Your task to perform on an android device: toggle notification dots Image 0: 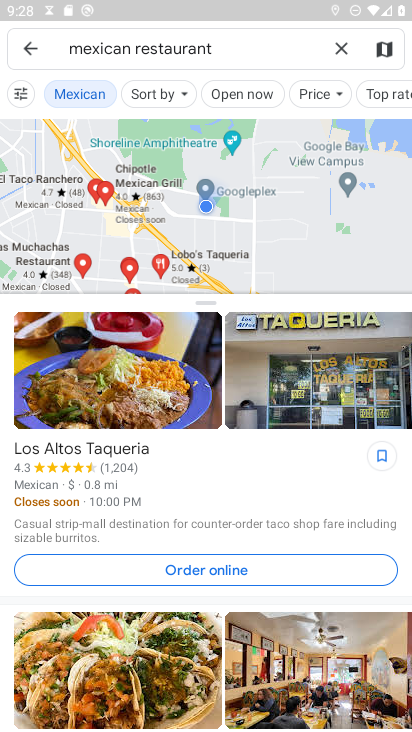
Step 0: press home button
Your task to perform on an android device: toggle notification dots Image 1: 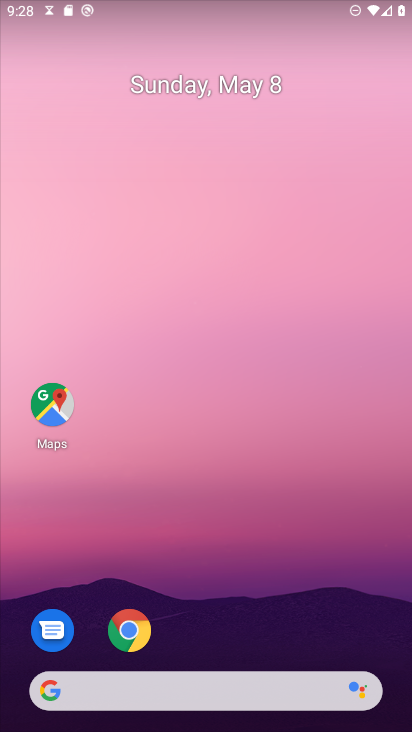
Step 1: drag from (167, 698) to (337, 94)
Your task to perform on an android device: toggle notification dots Image 2: 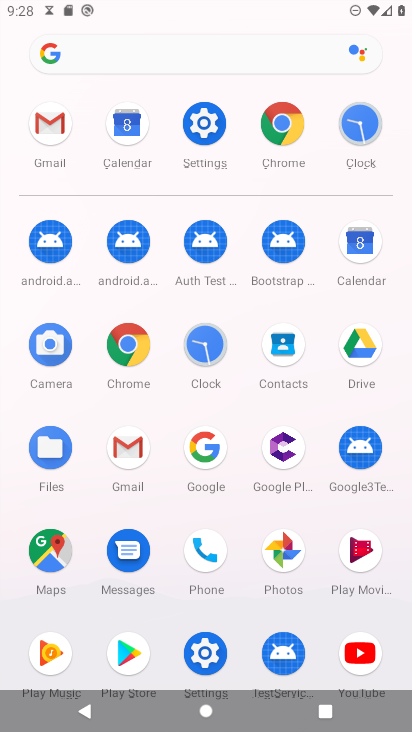
Step 2: click (203, 119)
Your task to perform on an android device: toggle notification dots Image 3: 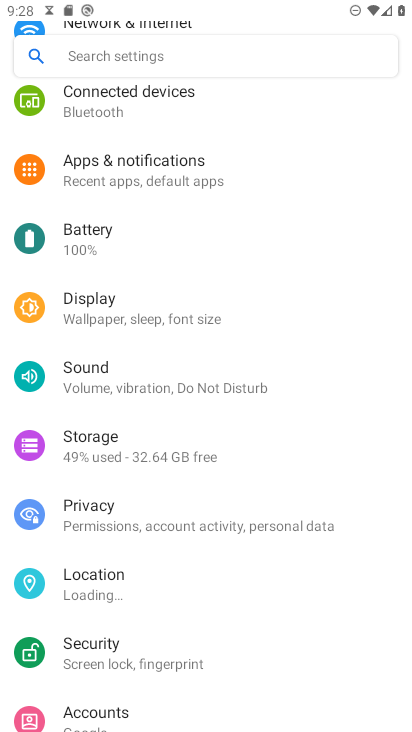
Step 3: click (166, 159)
Your task to perform on an android device: toggle notification dots Image 4: 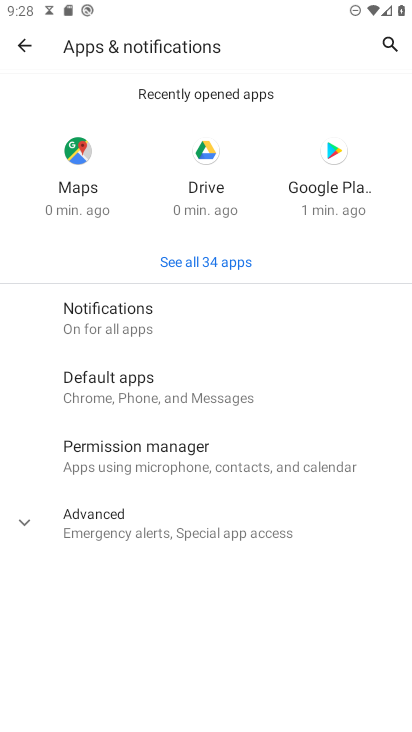
Step 4: click (147, 313)
Your task to perform on an android device: toggle notification dots Image 5: 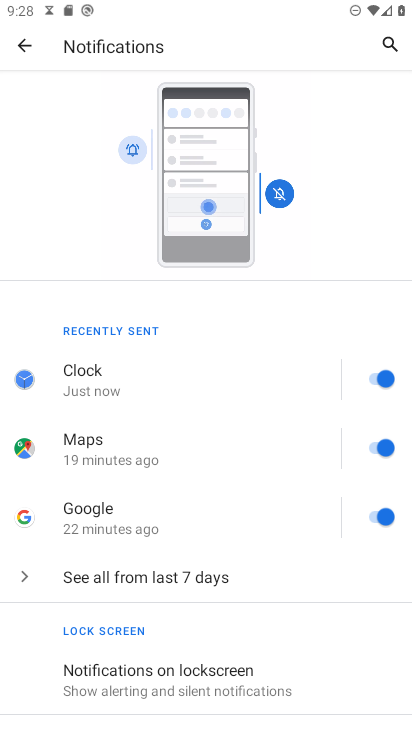
Step 5: drag from (213, 646) to (373, 159)
Your task to perform on an android device: toggle notification dots Image 6: 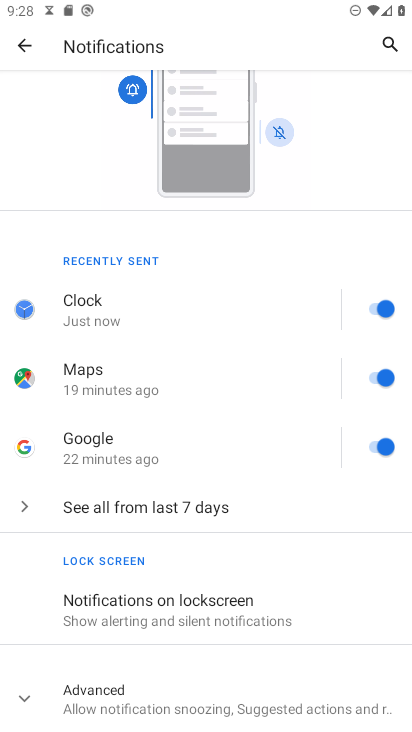
Step 6: click (117, 696)
Your task to perform on an android device: toggle notification dots Image 7: 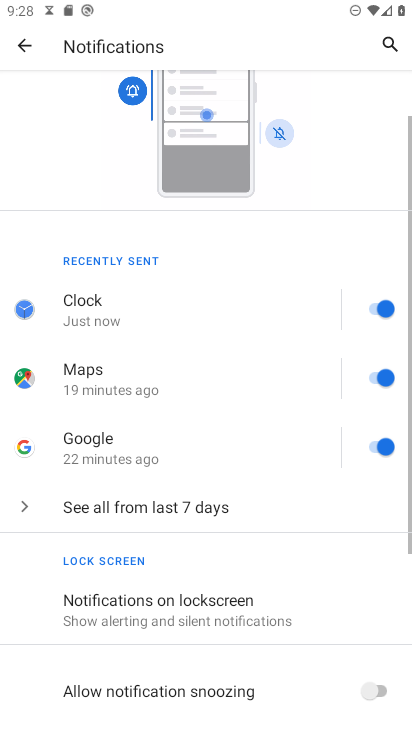
Step 7: drag from (162, 662) to (300, 207)
Your task to perform on an android device: toggle notification dots Image 8: 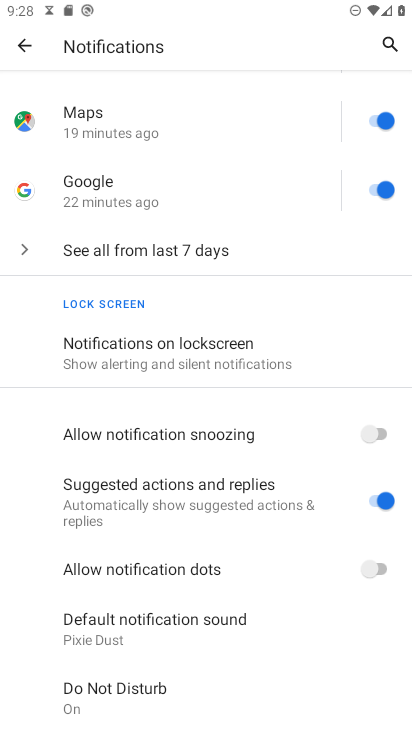
Step 8: click (384, 563)
Your task to perform on an android device: toggle notification dots Image 9: 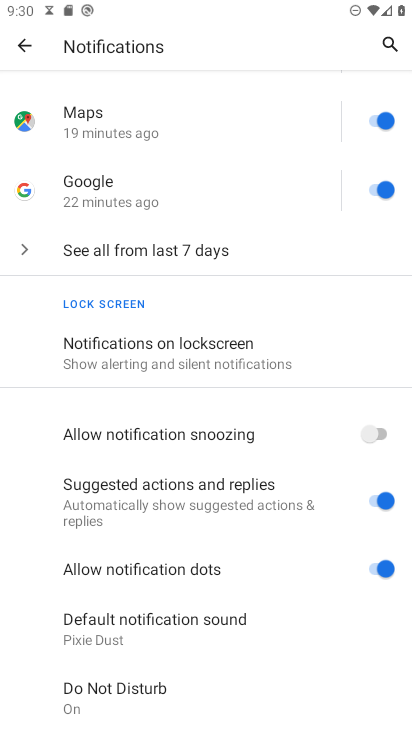
Step 9: task complete